Your task to perform on an android device: change timer sound Image 0: 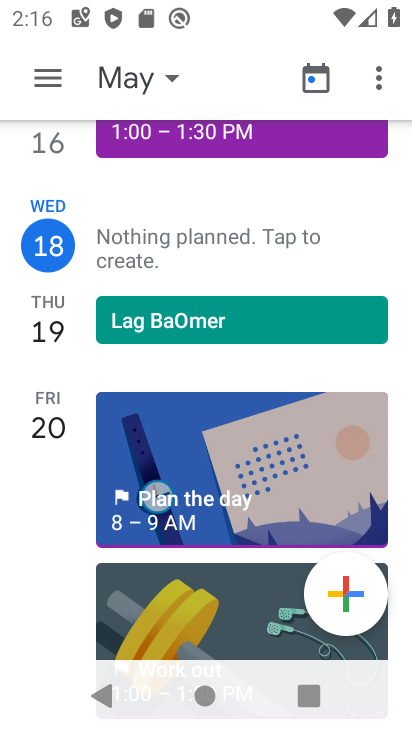
Step 0: press home button
Your task to perform on an android device: change timer sound Image 1: 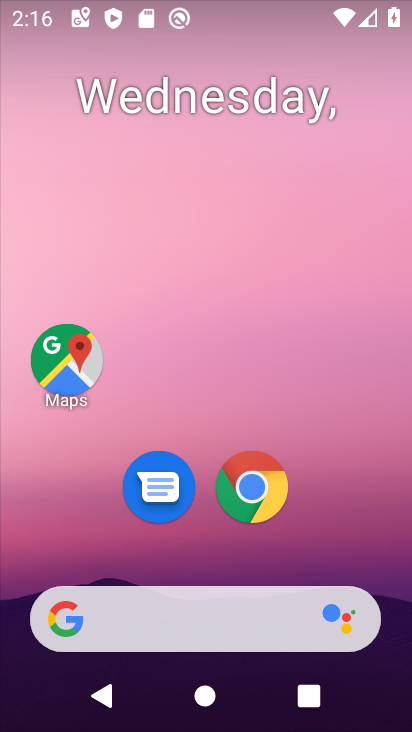
Step 1: drag from (308, 501) to (198, 90)
Your task to perform on an android device: change timer sound Image 2: 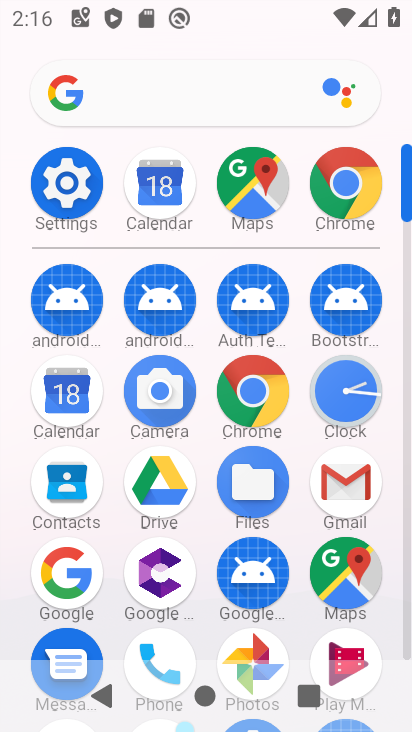
Step 2: click (339, 375)
Your task to perform on an android device: change timer sound Image 3: 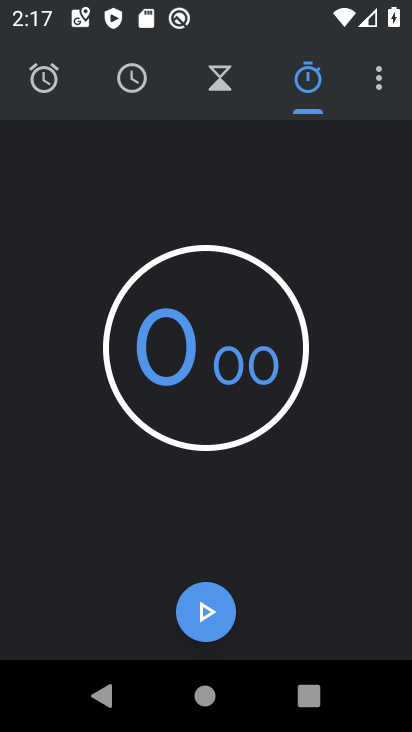
Step 3: click (378, 71)
Your task to perform on an android device: change timer sound Image 4: 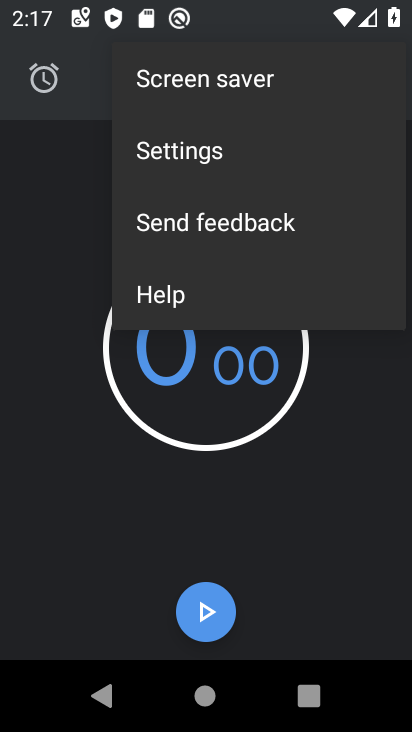
Step 4: click (192, 143)
Your task to perform on an android device: change timer sound Image 5: 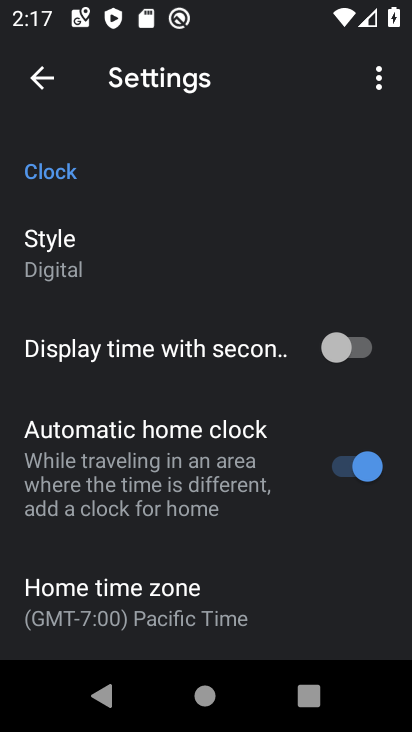
Step 5: drag from (262, 536) to (152, 187)
Your task to perform on an android device: change timer sound Image 6: 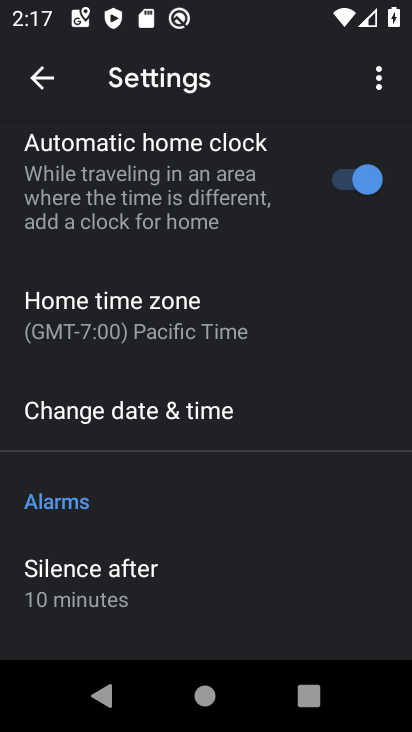
Step 6: drag from (310, 459) to (281, 167)
Your task to perform on an android device: change timer sound Image 7: 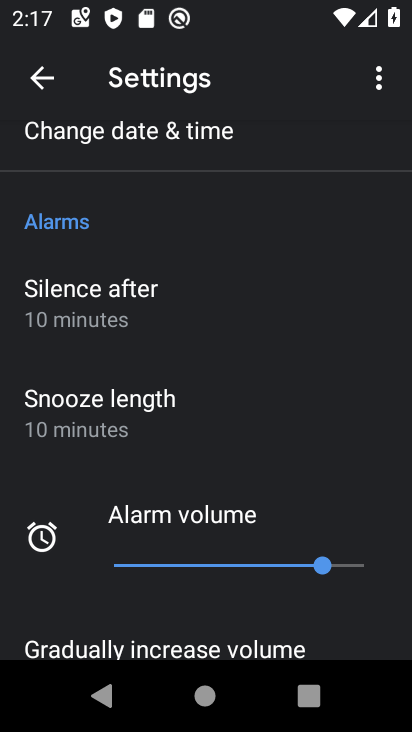
Step 7: drag from (307, 498) to (259, 195)
Your task to perform on an android device: change timer sound Image 8: 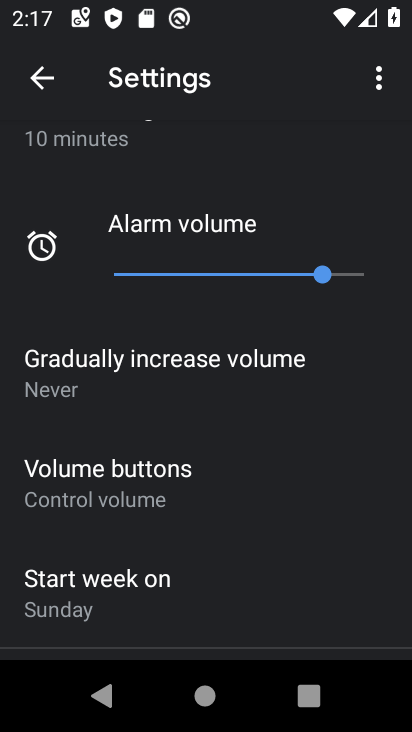
Step 8: drag from (265, 530) to (216, 190)
Your task to perform on an android device: change timer sound Image 9: 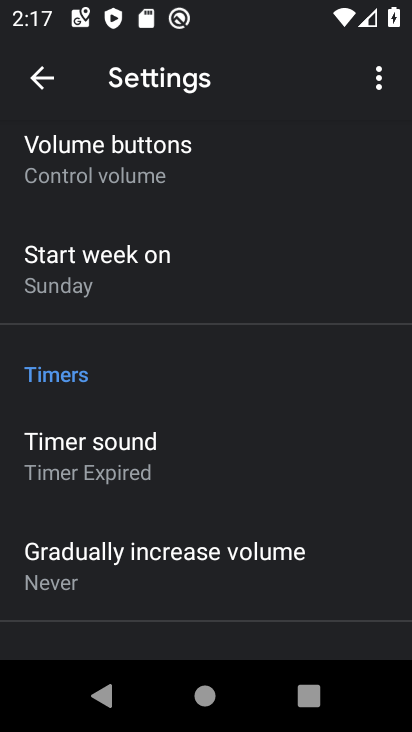
Step 9: drag from (235, 415) to (204, 229)
Your task to perform on an android device: change timer sound Image 10: 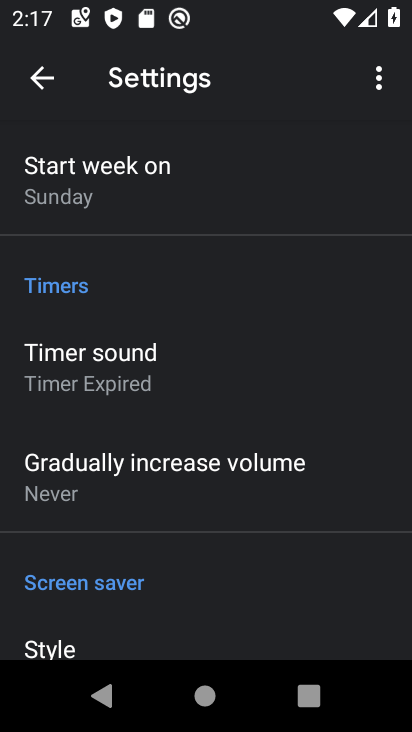
Step 10: click (117, 354)
Your task to perform on an android device: change timer sound Image 11: 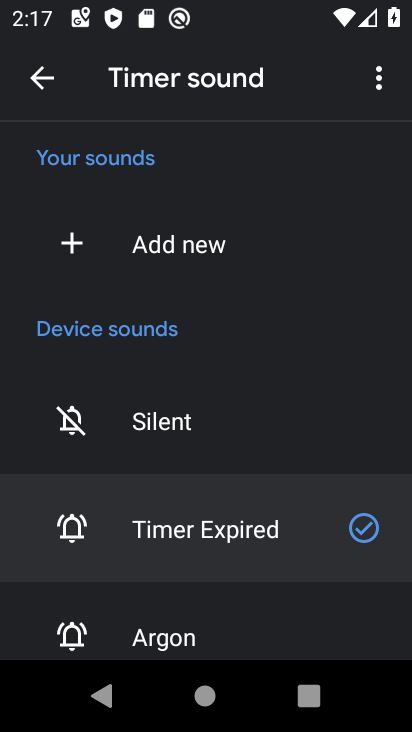
Step 11: click (151, 629)
Your task to perform on an android device: change timer sound Image 12: 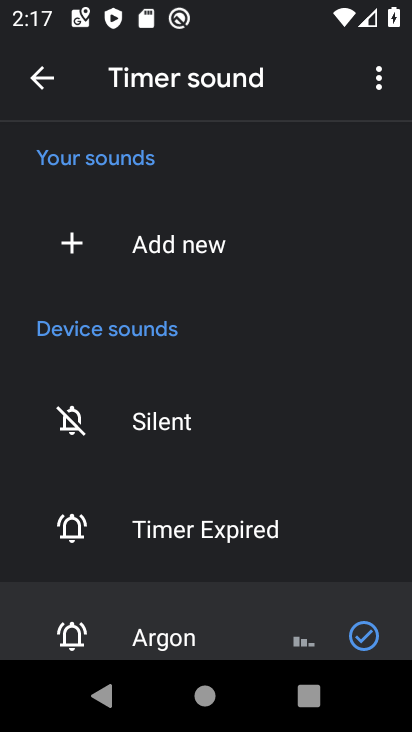
Step 12: task complete